Your task to perform on an android device: turn on sleep mode Image 0: 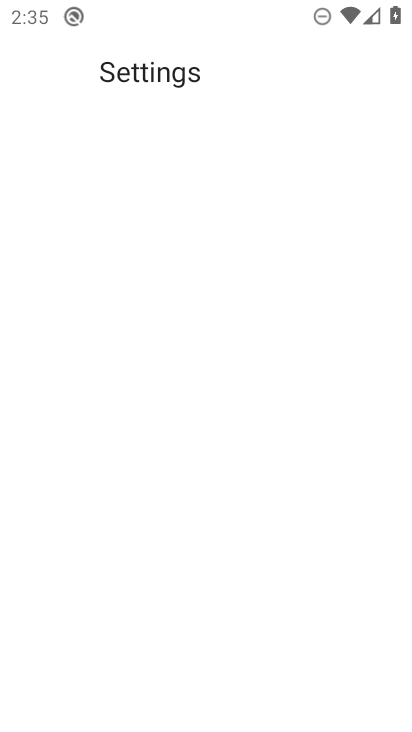
Step 0: drag from (370, 591) to (196, 101)
Your task to perform on an android device: turn on sleep mode Image 1: 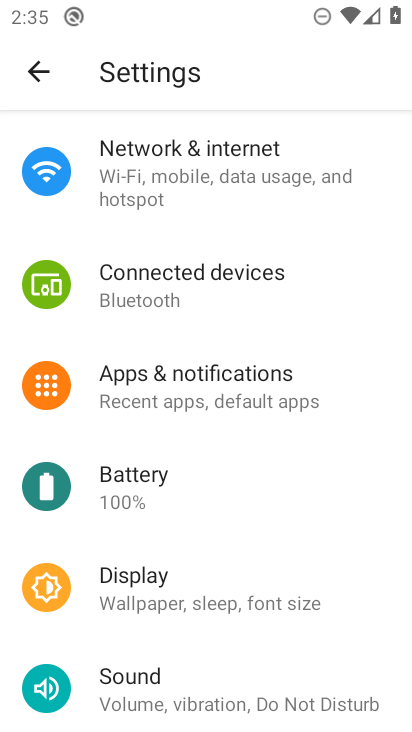
Step 1: click (139, 577)
Your task to perform on an android device: turn on sleep mode Image 2: 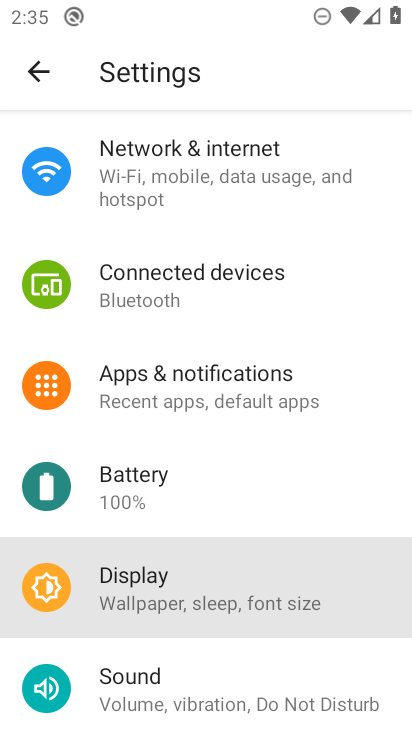
Step 2: click (136, 581)
Your task to perform on an android device: turn on sleep mode Image 3: 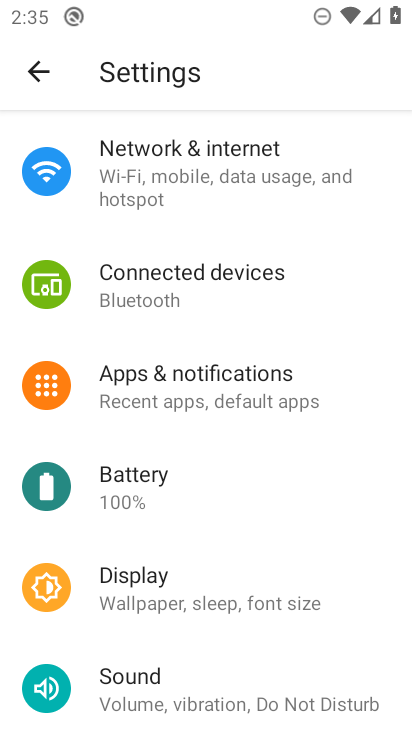
Step 3: click (136, 586)
Your task to perform on an android device: turn on sleep mode Image 4: 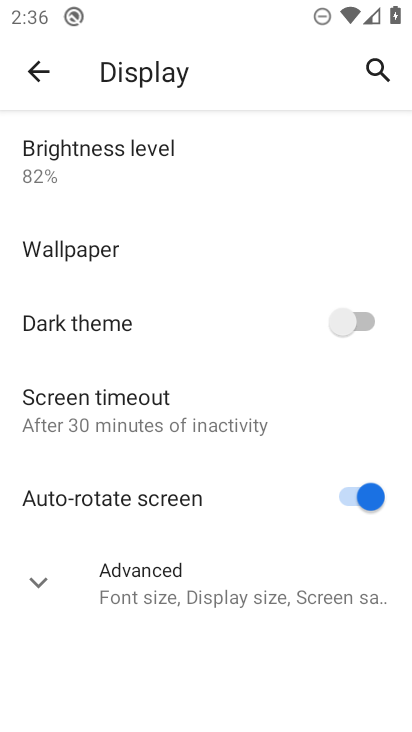
Step 4: click (149, 576)
Your task to perform on an android device: turn on sleep mode Image 5: 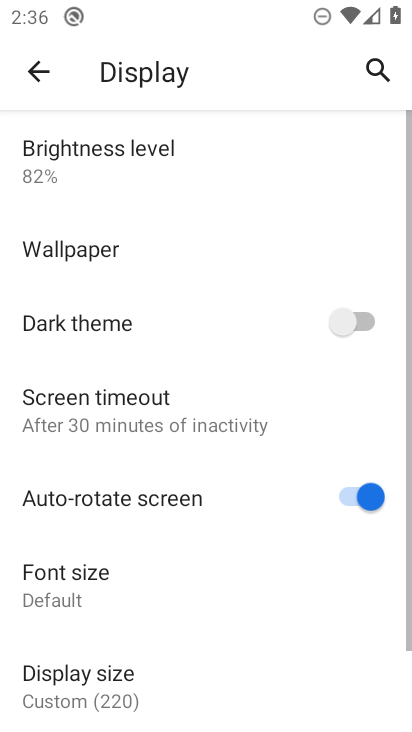
Step 5: click (90, 426)
Your task to perform on an android device: turn on sleep mode Image 6: 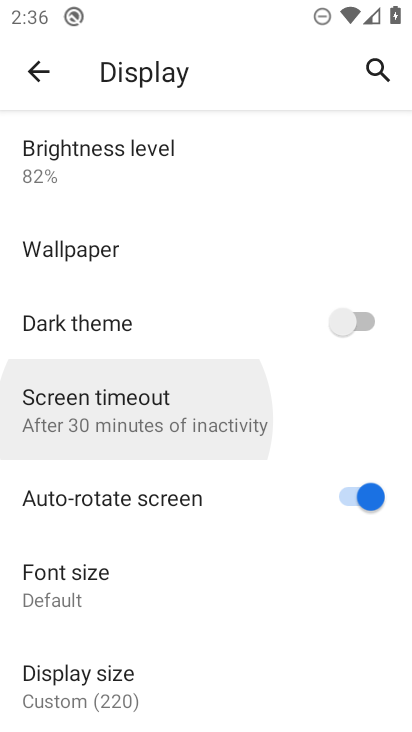
Step 6: click (92, 420)
Your task to perform on an android device: turn on sleep mode Image 7: 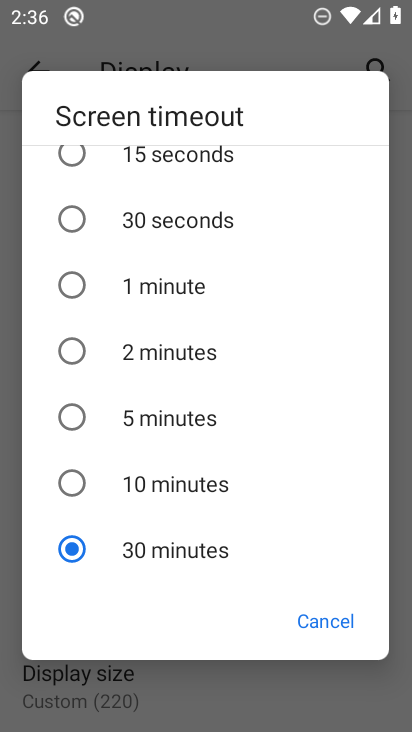
Step 7: task complete